Your task to perform on an android device: Is it going to rain tomorrow? Image 0: 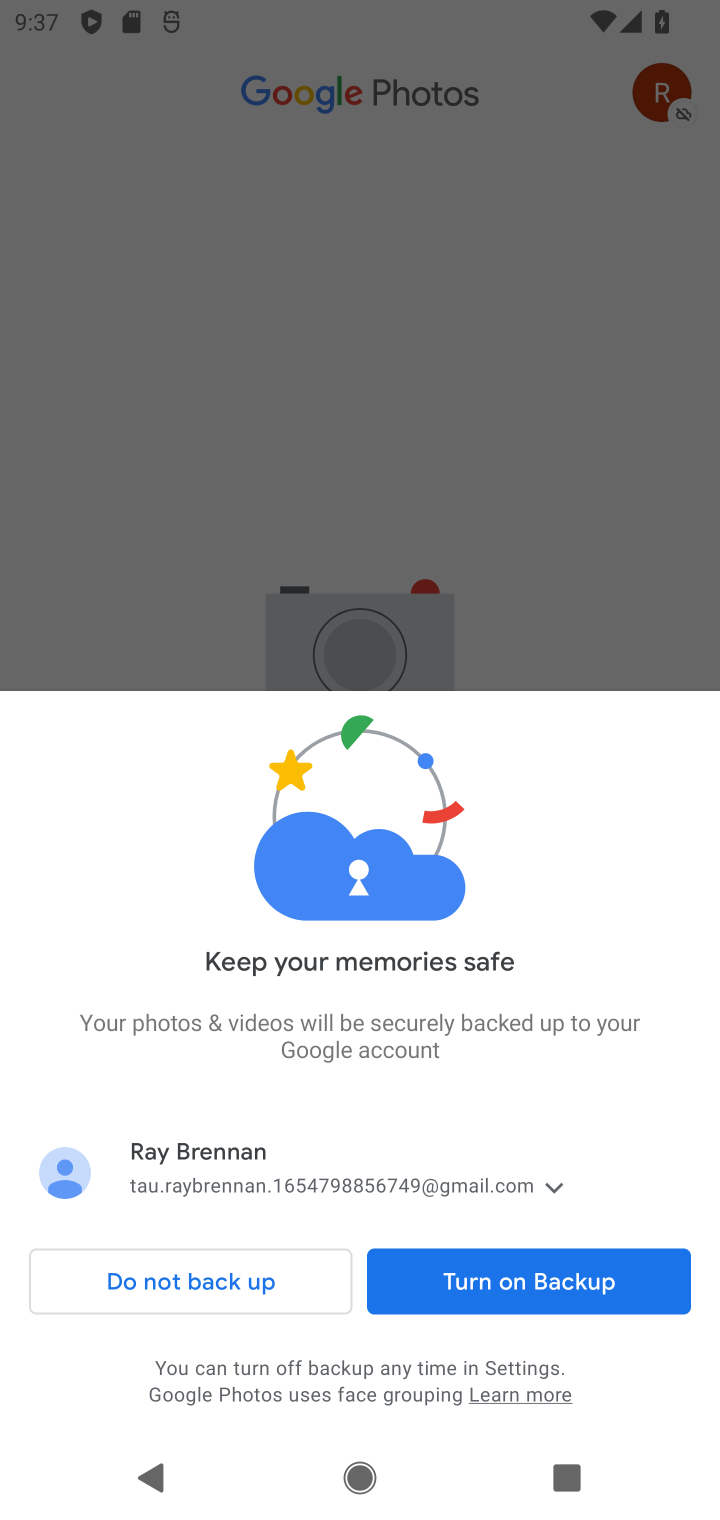
Step 0: press home button
Your task to perform on an android device: Is it going to rain tomorrow? Image 1: 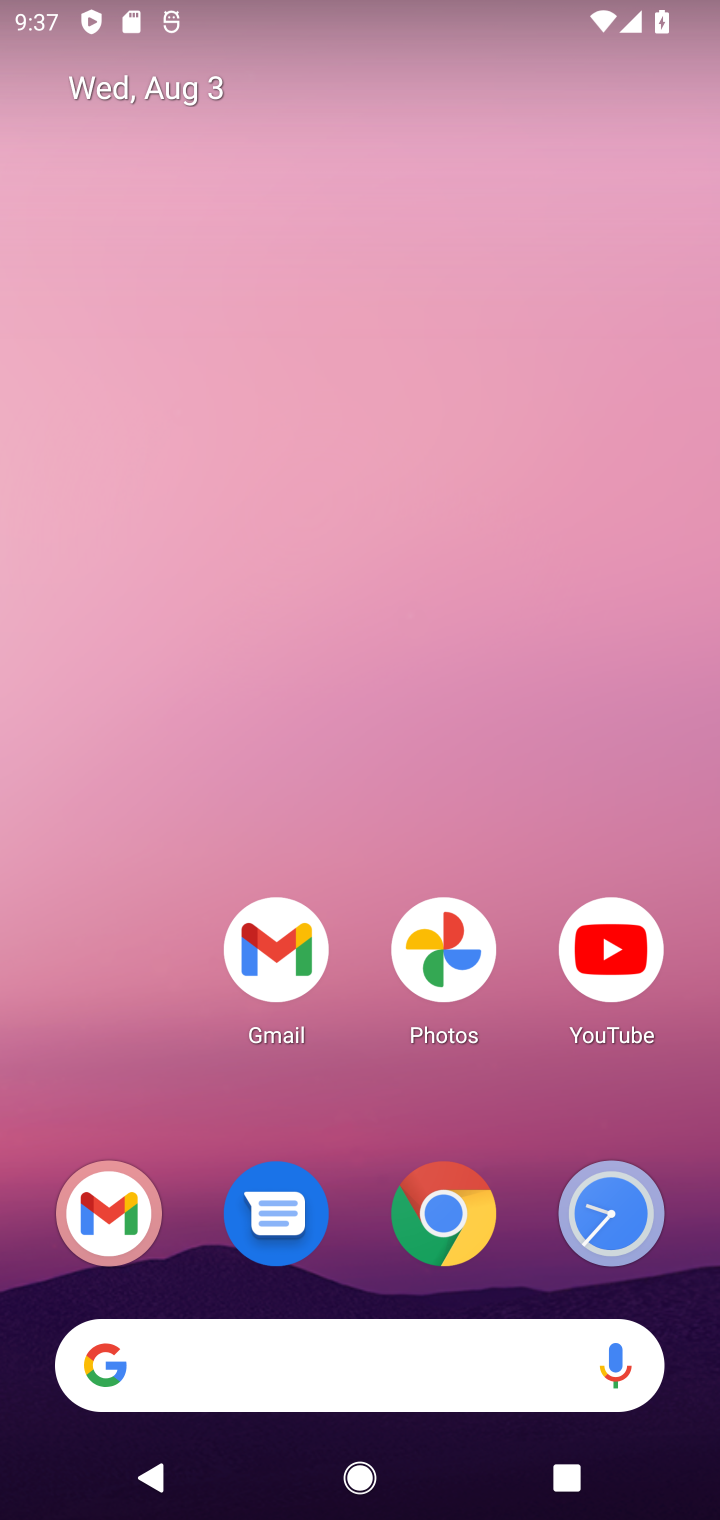
Step 1: click (354, 1358)
Your task to perform on an android device: Is it going to rain tomorrow? Image 2: 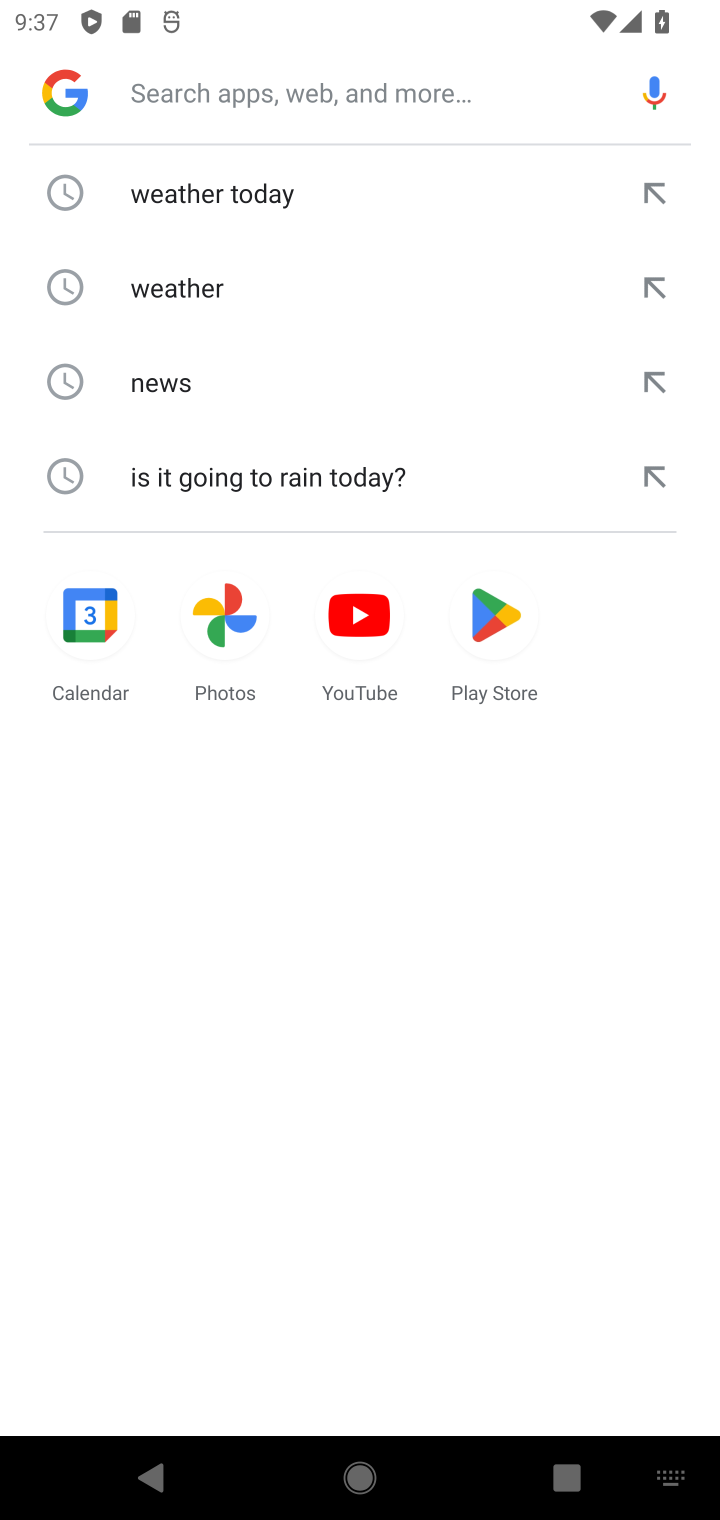
Step 2: click (337, 283)
Your task to perform on an android device: Is it going to rain tomorrow? Image 3: 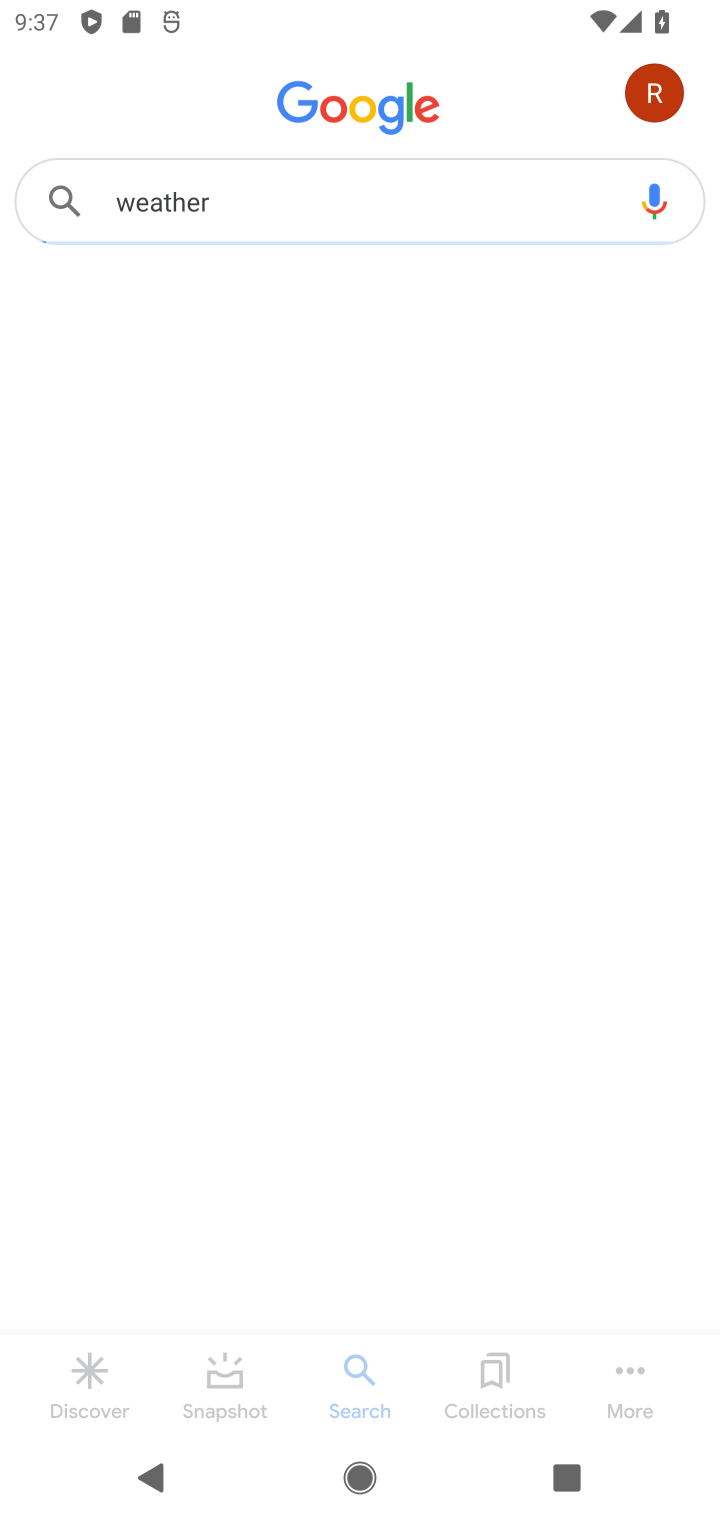
Step 3: click (337, 283)
Your task to perform on an android device: Is it going to rain tomorrow? Image 4: 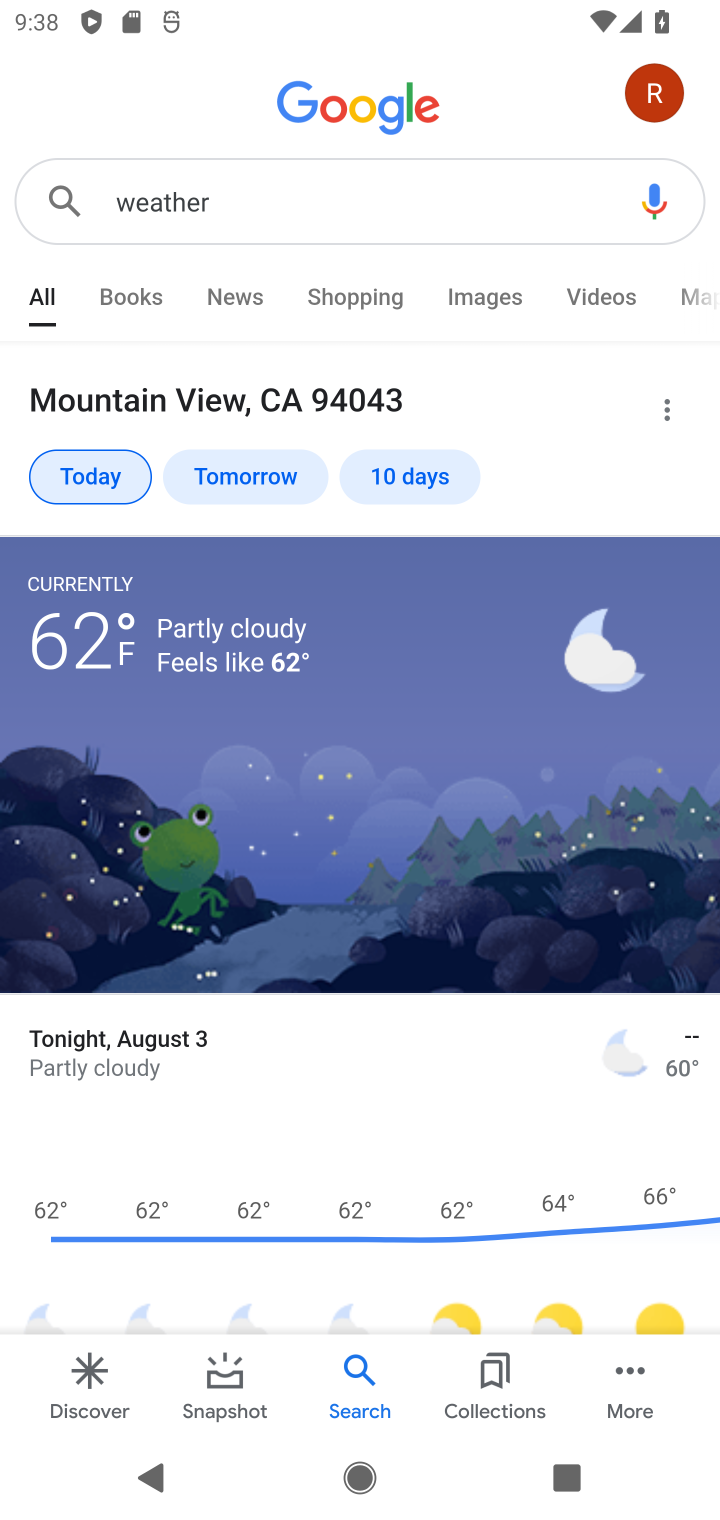
Step 4: click (228, 470)
Your task to perform on an android device: Is it going to rain tomorrow? Image 5: 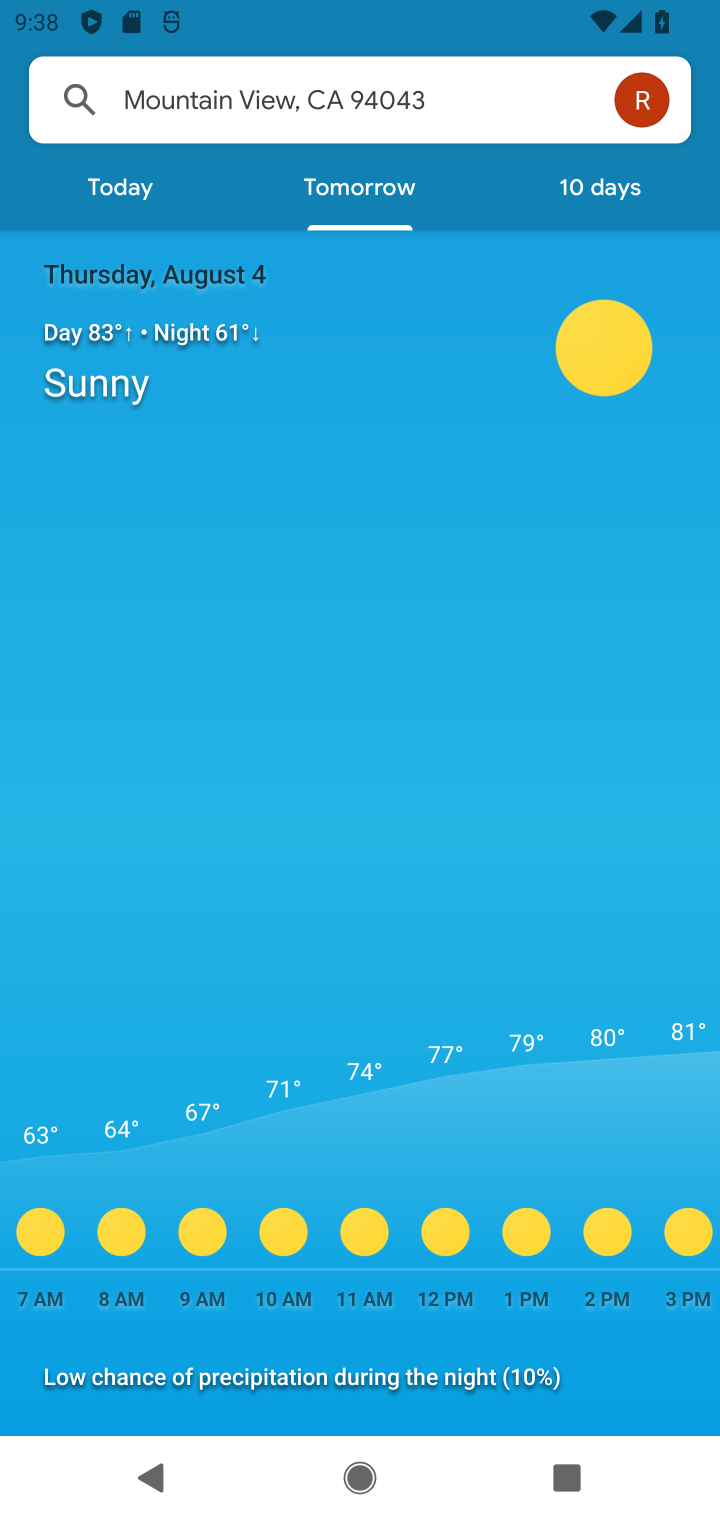
Step 5: task complete